Your task to perform on an android device: turn on location history Image 0: 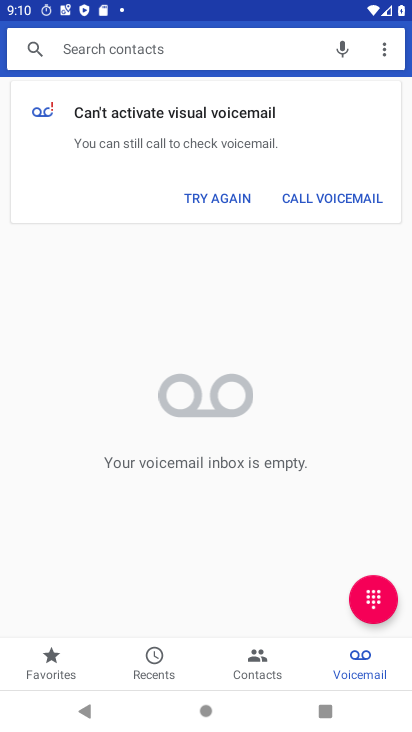
Step 0: press home button
Your task to perform on an android device: turn on location history Image 1: 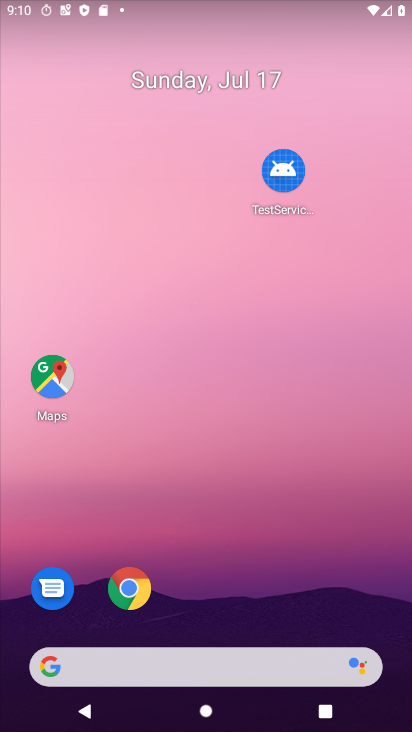
Step 1: drag from (237, 627) to (396, 0)
Your task to perform on an android device: turn on location history Image 2: 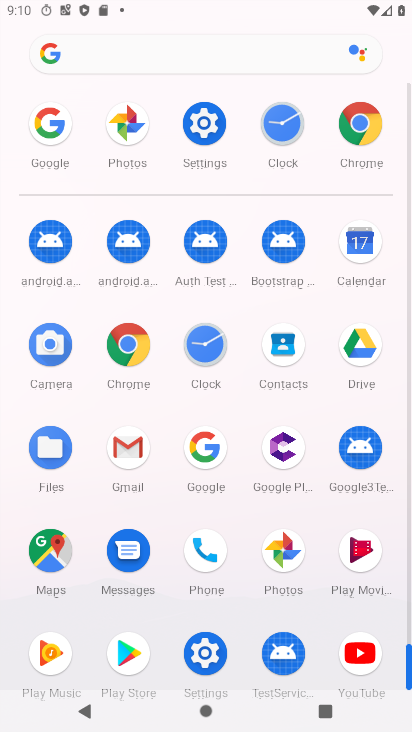
Step 2: click (208, 142)
Your task to perform on an android device: turn on location history Image 3: 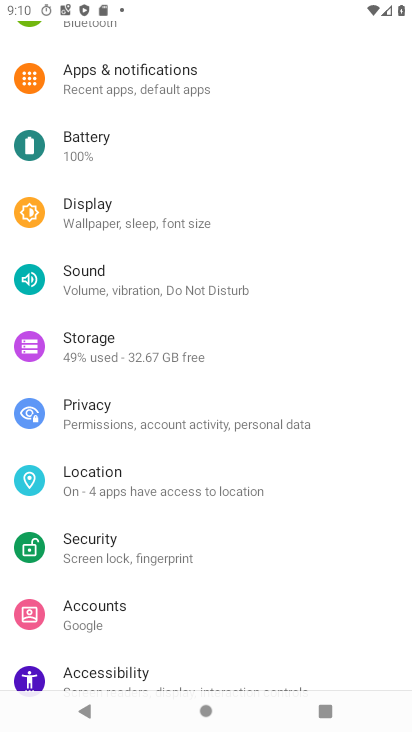
Step 3: click (172, 496)
Your task to perform on an android device: turn on location history Image 4: 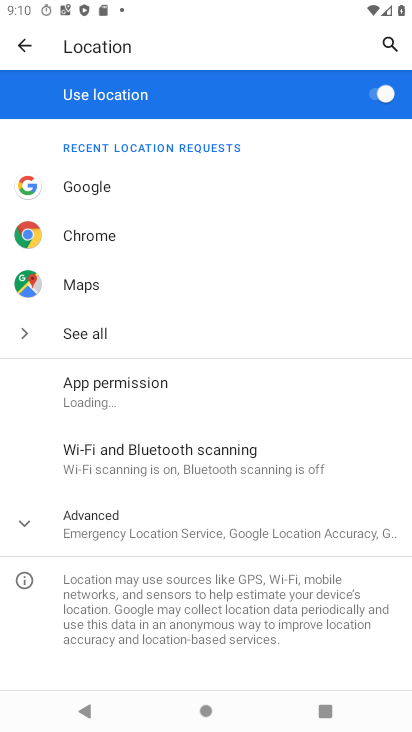
Step 4: click (168, 519)
Your task to perform on an android device: turn on location history Image 5: 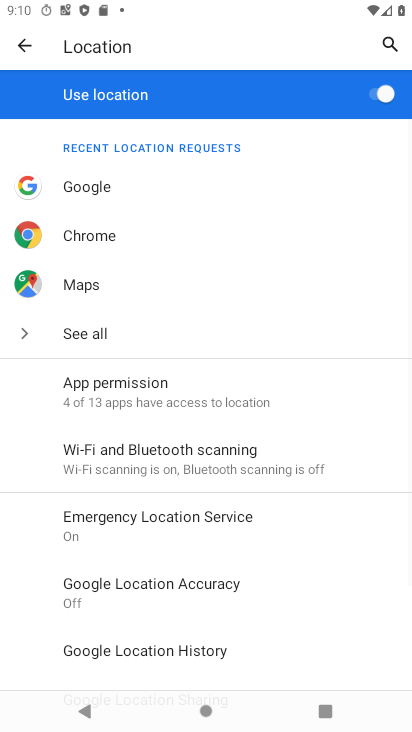
Step 5: drag from (183, 571) to (274, 263)
Your task to perform on an android device: turn on location history Image 6: 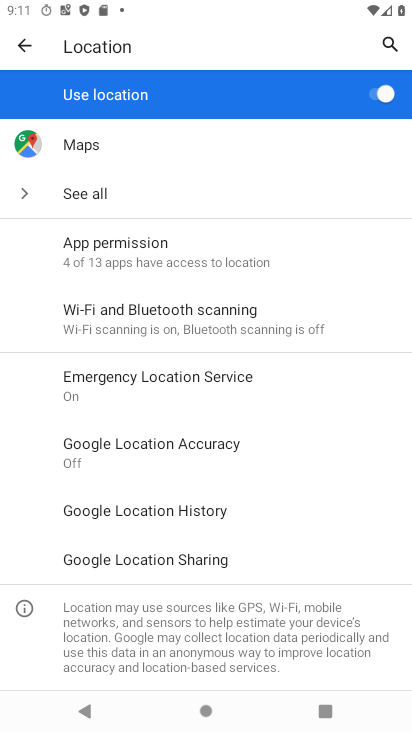
Step 6: click (186, 519)
Your task to perform on an android device: turn on location history Image 7: 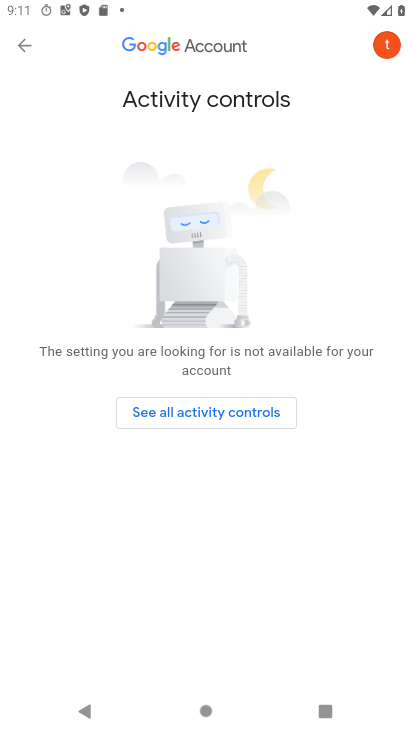
Step 7: click (262, 413)
Your task to perform on an android device: turn on location history Image 8: 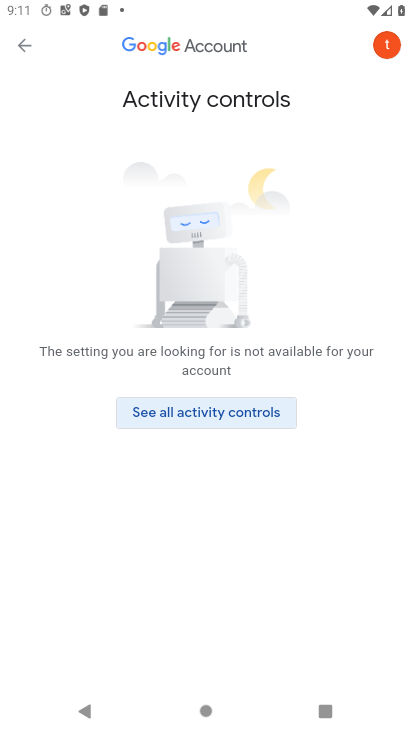
Step 8: task complete